Your task to perform on an android device: toggle airplane mode Image 0: 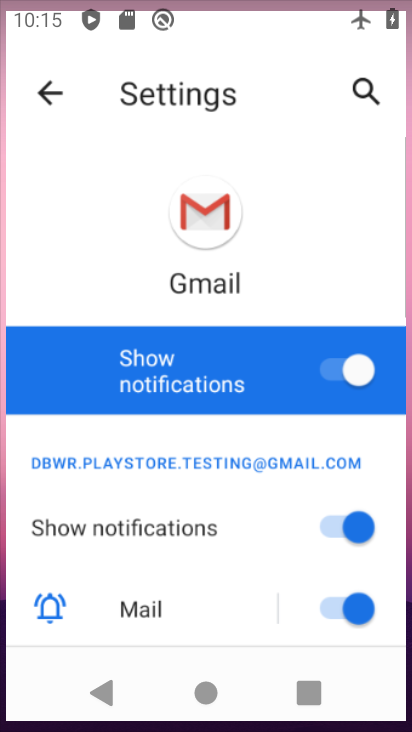
Step 0: drag from (165, 547) to (187, 184)
Your task to perform on an android device: toggle airplane mode Image 1: 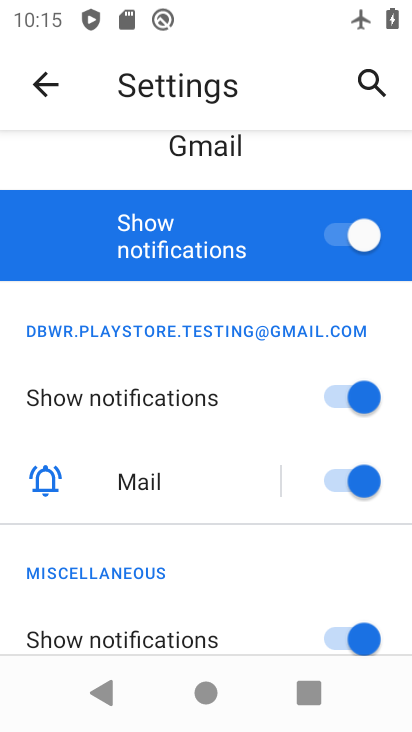
Step 1: click (48, 85)
Your task to perform on an android device: toggle airplane mode Image 2: 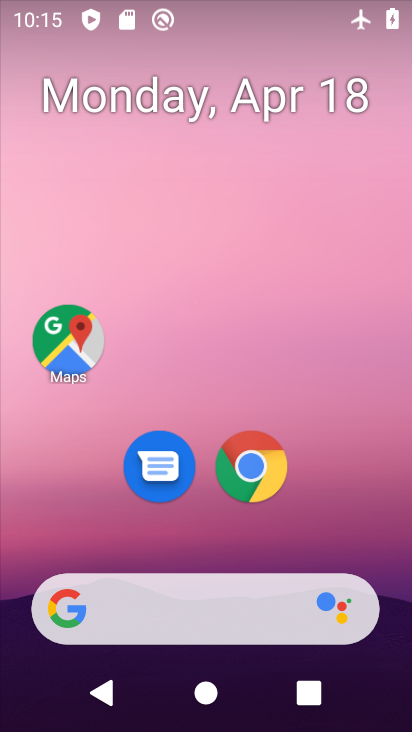
Step 2: drag from (218, 667) to (304, 188)
Your task to perform on an android device: toggle airplane mode Image 3: 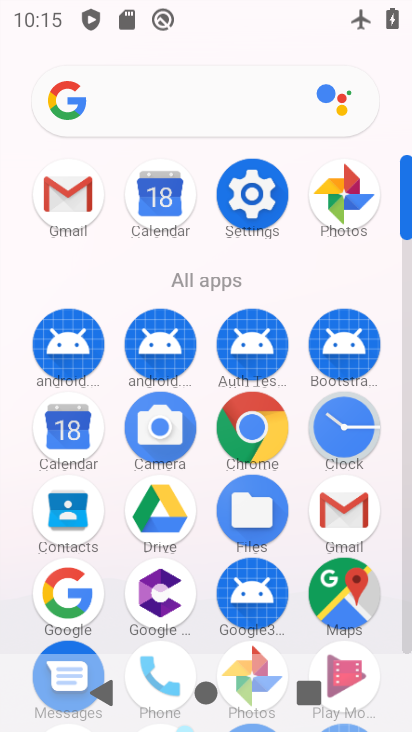
Step 3: click (270, 226)
Your task to perform on an android device: toggle airplane mode Image 4: 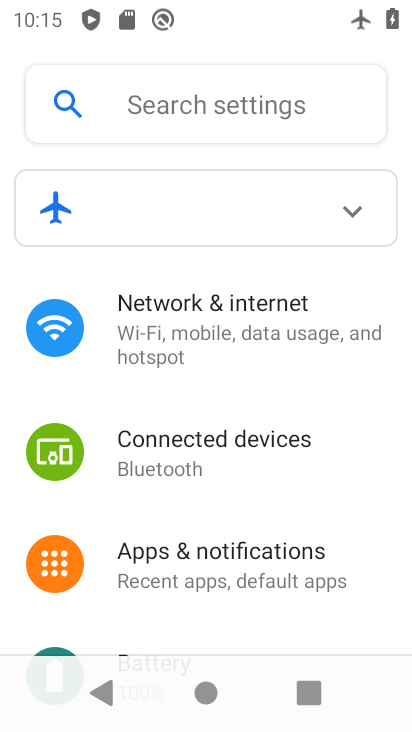
Step 4: click (222, 345)
Your task to perform on an android device: toggle airplane mode Image 5: 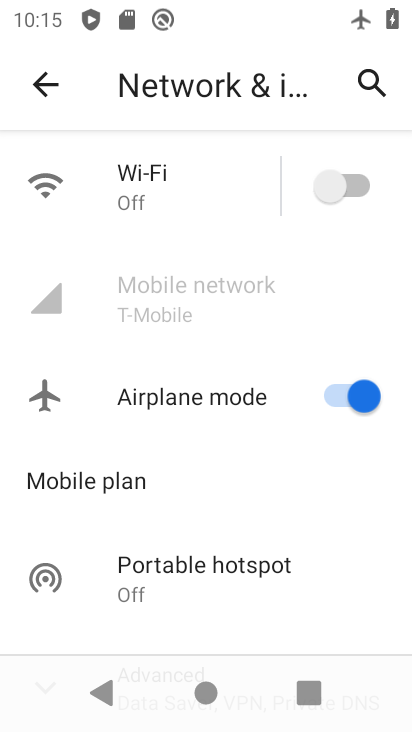
Step 5: click (310, 404)
Your task to perform on an android device: toggle airplane mode Image 6: 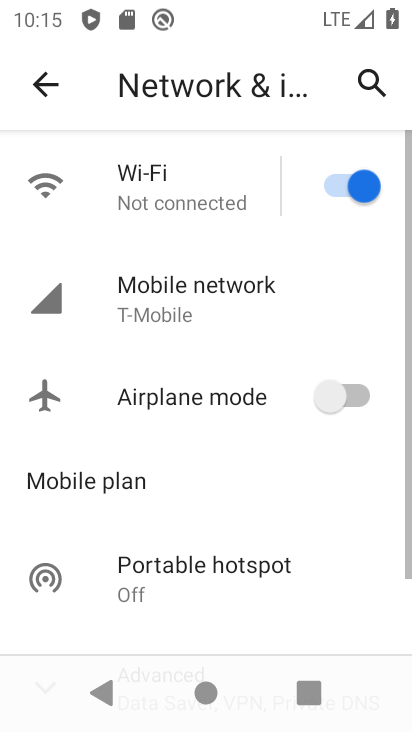
Step 6: task complete